Your task to perform on an android device: turn on the 12-hour format for clock Image 0: 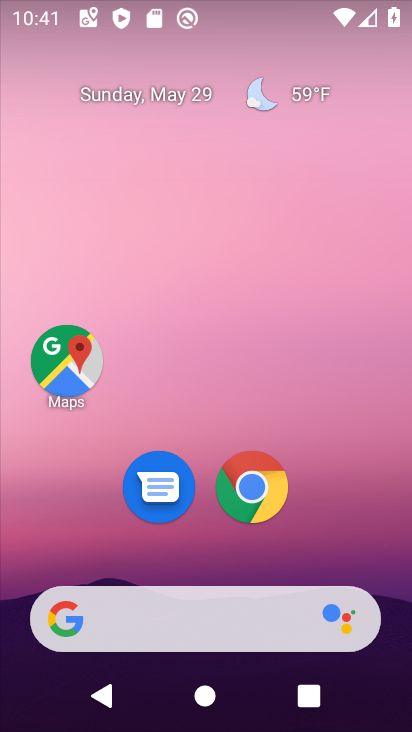
Step 0: drag from (397, 692) to (357, 116)
Your task to perform on an android device: turn on the 12-hour format for clock Image 1: 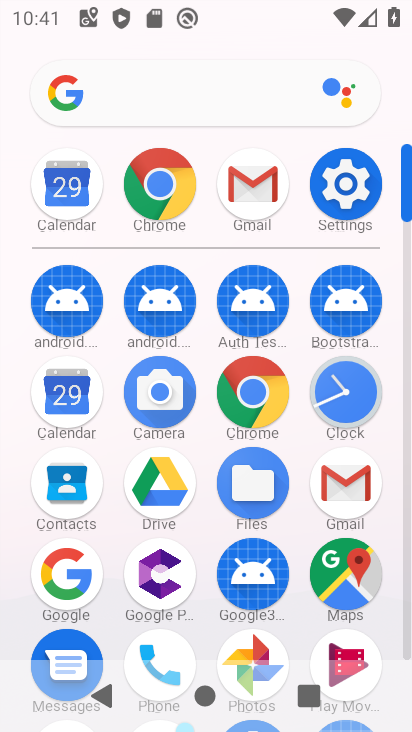
Step 1: click (348, 393)
Your task to perform on an android device: turn on the 12-hour format for clock Image 2: 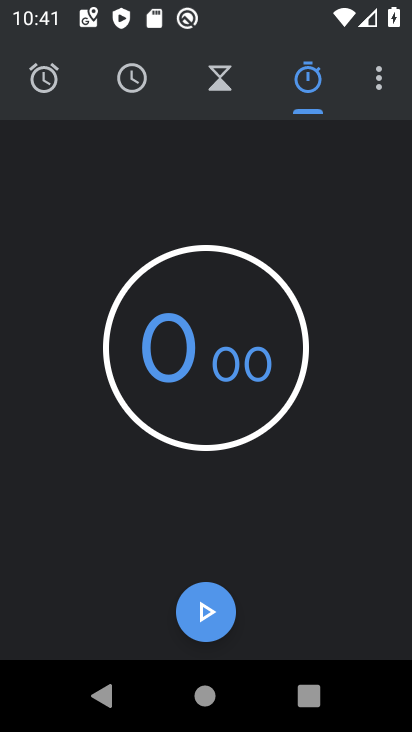
Step 2: click (375, 83)
Your task to perform on an android device: turn on the 12-hour format for clock Image 3: 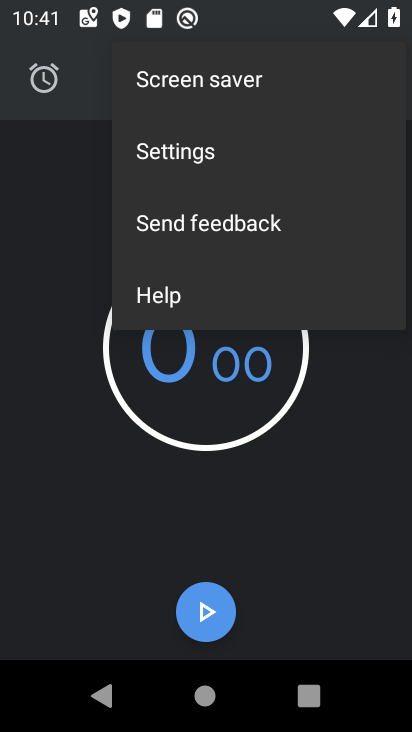
Step 3: click (179, 154)
Your task to perform on an android device: turn on the 12-hour format for clock Image 4: 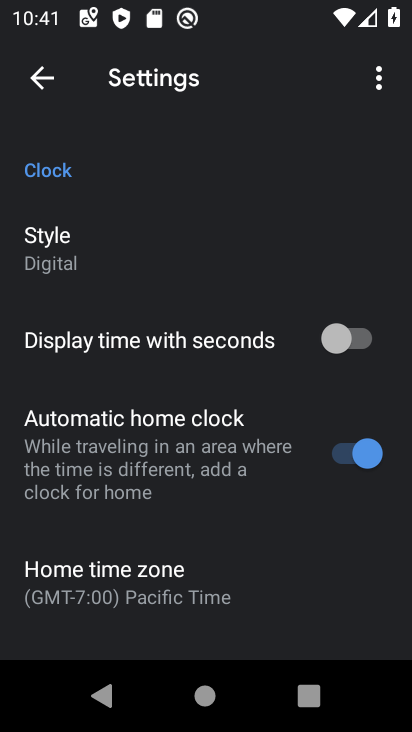
Step 4: drag from (243, 613) to (237, 183)
Your task to perform on an android device: turn on the 12-hour format for clock Image 5: 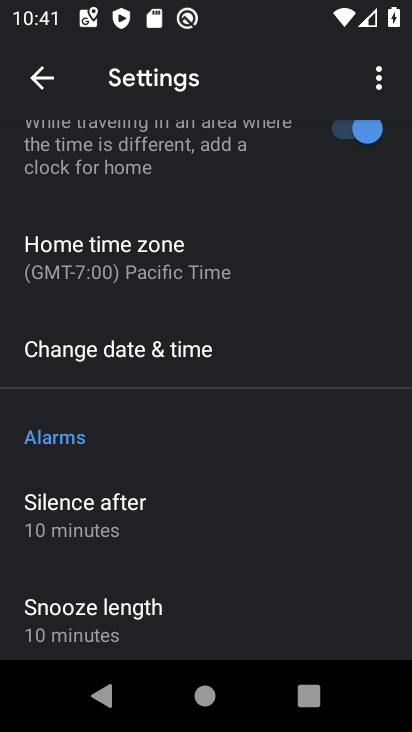
Step 5: click (100, 350)
Your task to perform on an android device: turn on the 12-hour format for clock Image 6: 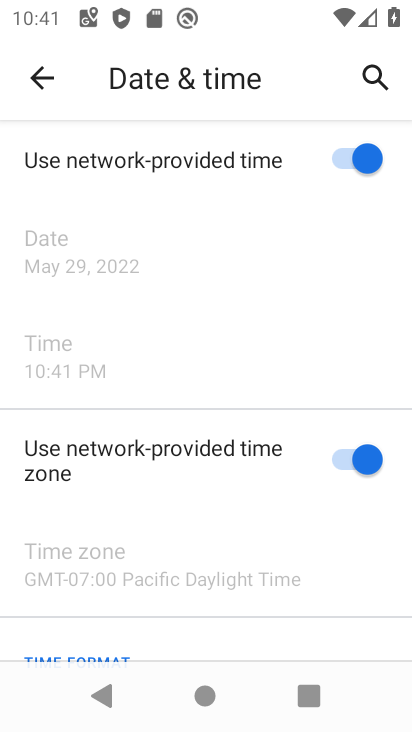
Step 6: task complete